Your task to perform on an android device: see creations saved in the google photos Image 0: 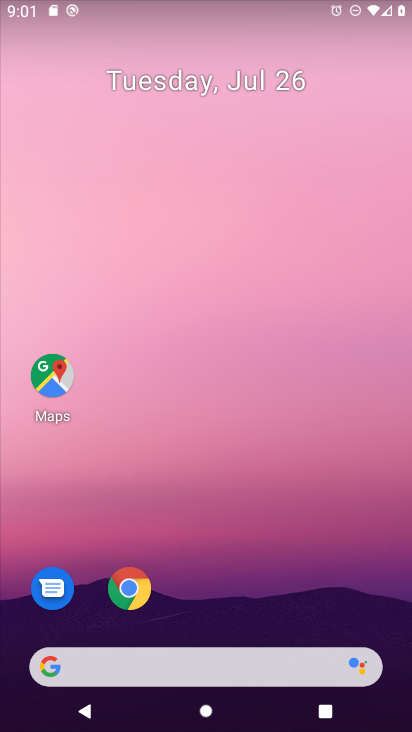
Step 0: drag from (230, 664) to (241, 242)
Your task to perform on an android device: see creations saved in the google photos Image 1: 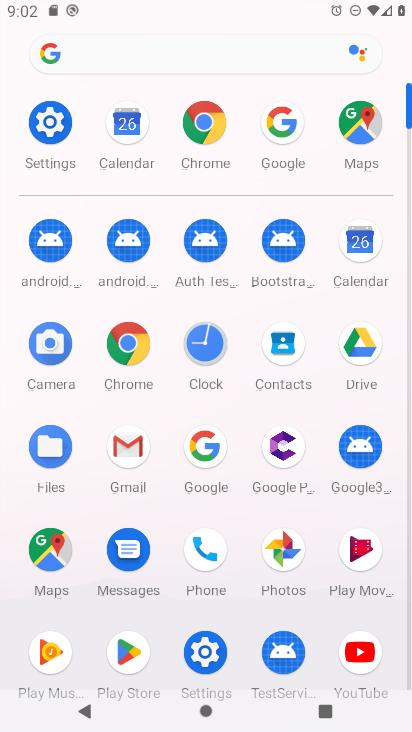
Step 1: click (285, 554)
Your task to perform on an android device: see creations saved in the google photos Image 2: 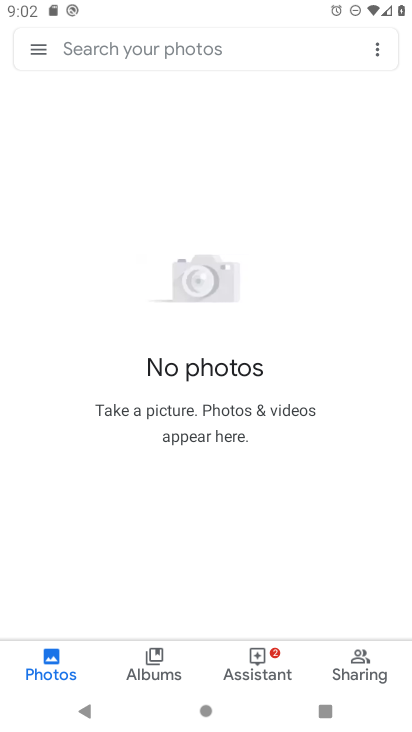
Step 2: click (162, 657)
Your task to perform on an android device: see creations saved in the google photos Image 3: 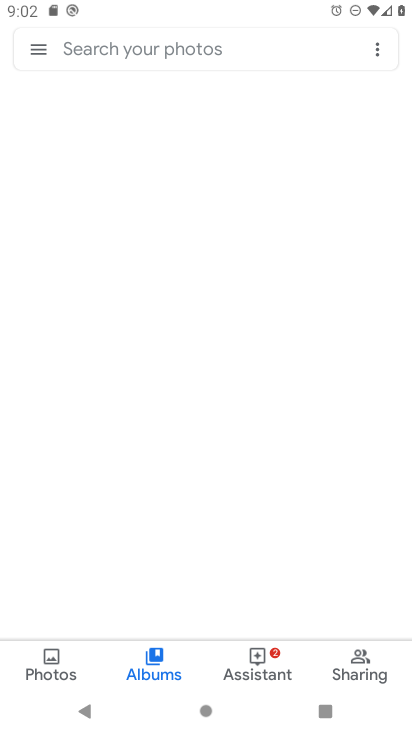
Step 3: click (256, 655)
Your task to perform on an android device: see creations saved in the google photos Image 4: 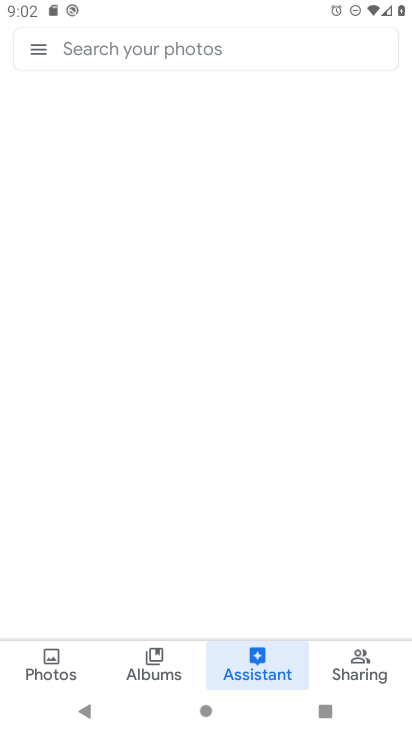
Step 4: click (327, 661)
Your task to perform on an android device: see creations saved in the google photos Image 5: 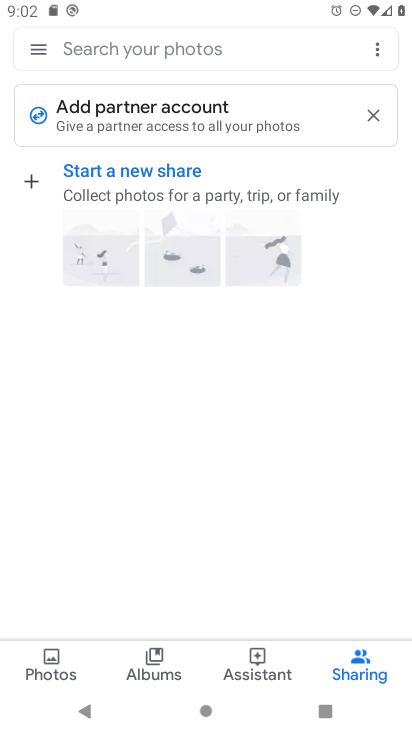
Step 5: click (327, 659)
Your task to perform on an android device: see creations saved in the google photos Image 6: 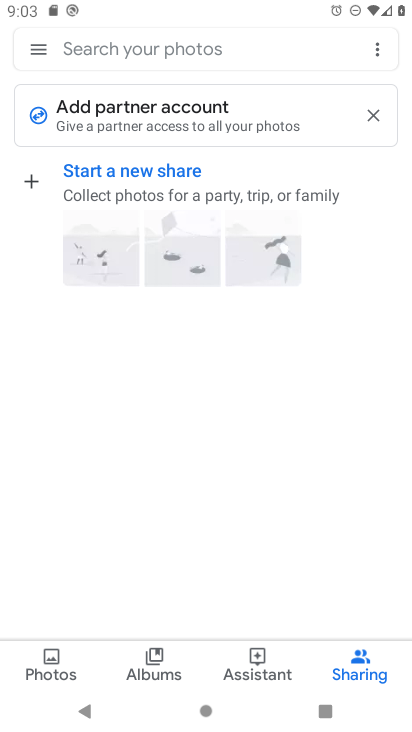
Step 6: task complete